Your task to perform on an android device: toggle airplane mode Image 0: 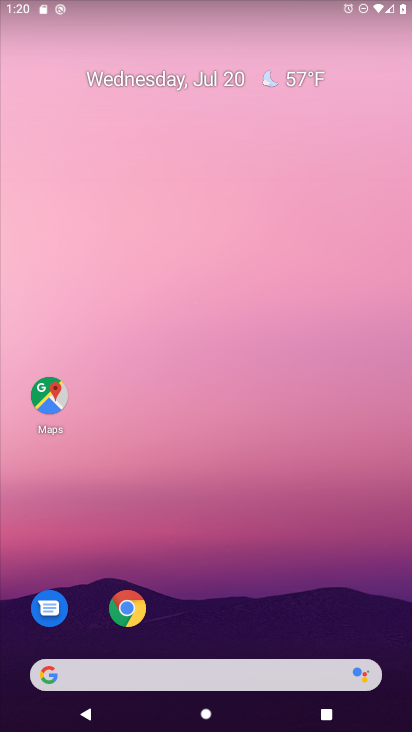
Step 0: drag from (126, 656) to (202, 210)
Your task to perform on an android device: toggle airplane mode Image 1: 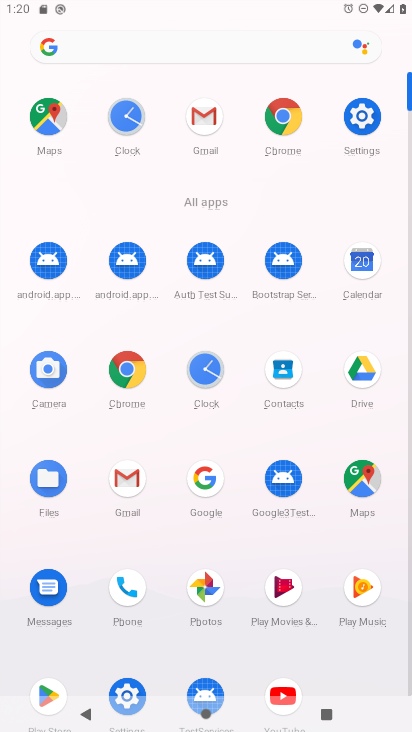
Step 1: click (361, 122)
Your task to perform on an android device: toggle airplane mode Image 2: 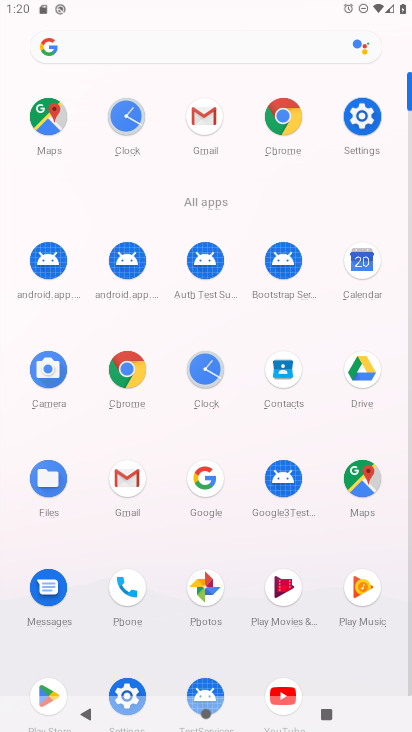
Step 2: click (361, 122)
Your task to perform on an android device: toggle airplane mode Image 3: 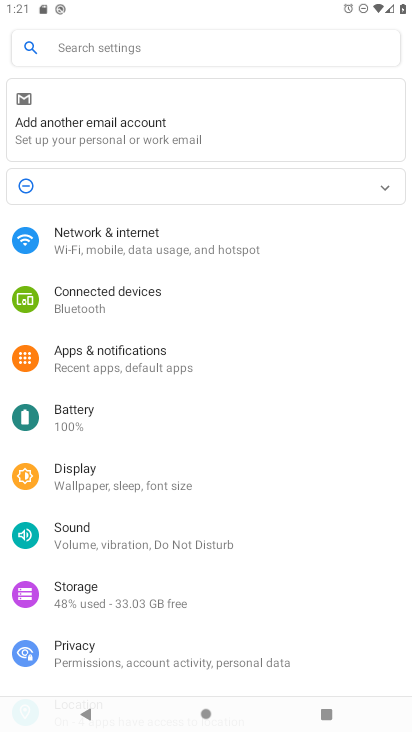
Step 3: click (140, 243)
Your task to perform on an android device: toggle airplane mode Image 4: 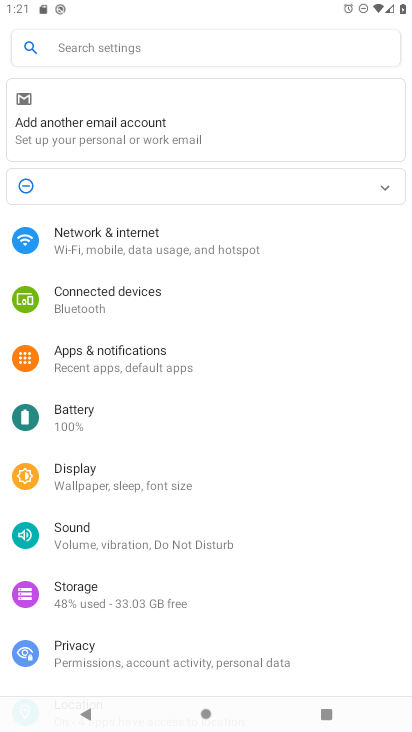
Step 4: click (140, 243)
Your task to perform on an android device: toggle airplane mode Image 5: 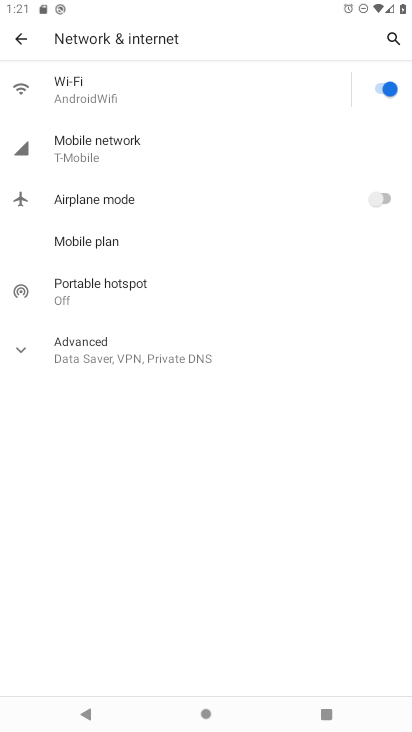
Step 5: click (385, 197)
Your task to perform on an android device: toggle airplane mode Image 6: 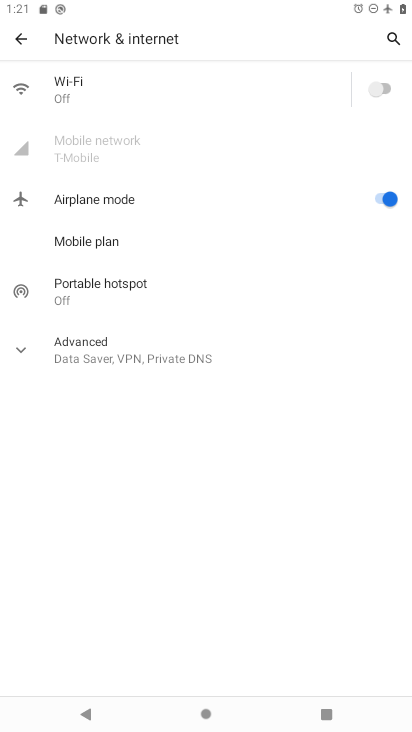
Step 6: task complete